Your task to perform on an android device: Open Chrome and go to settings Image 0: 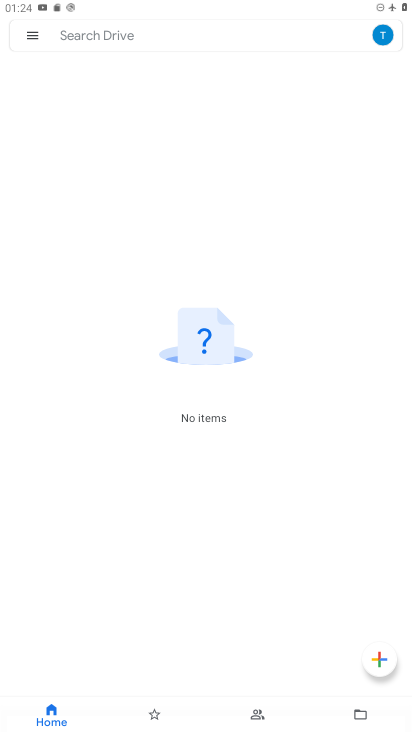
Step 0: press home button
Your task to perform on an android device: Open Chrome and go to settings Image 1: 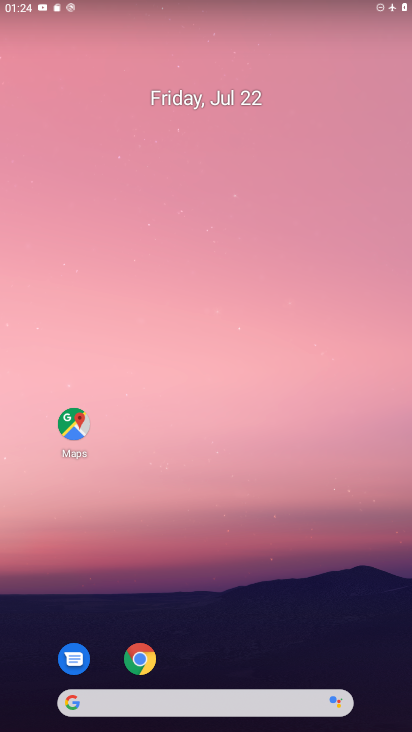
Step 1: click (139, 660)
Your task to perform on an android device: Open Chrome and go to settings Image 2: 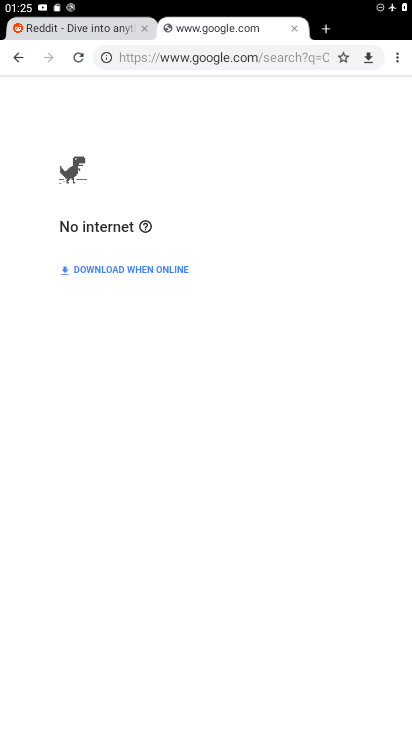
Step 2: click (399, 55)
Your task to perform on an android device: Open Chrome and go to settings Image 3: 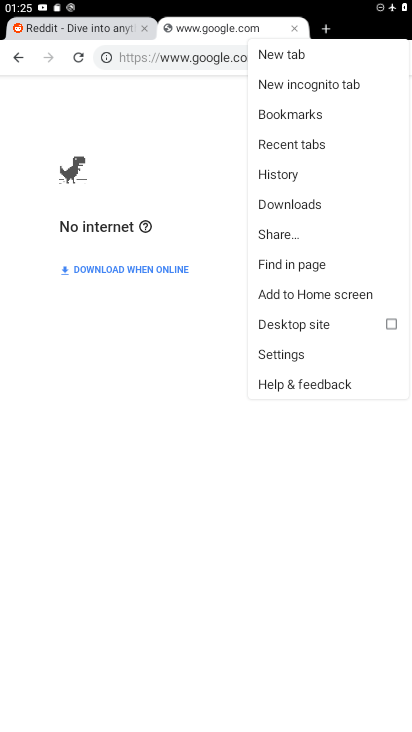
Step 3: click (297, 352)
Your task to perform on an android device: Open Chrome and go to settings Image 4: 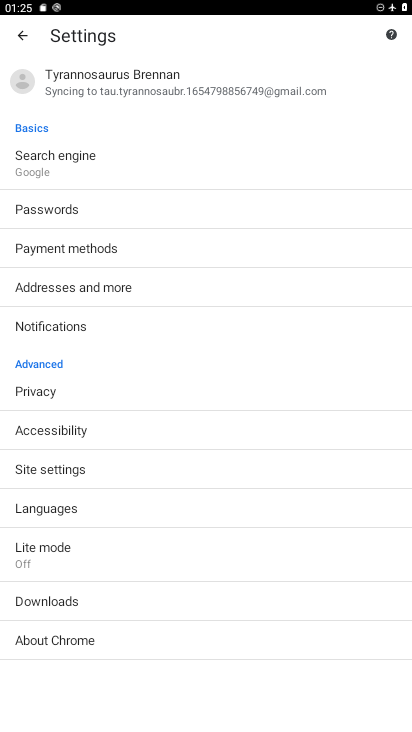
Step 4: task complete